Your task to perform on an android device: empty trash in the gmail app Image 0: 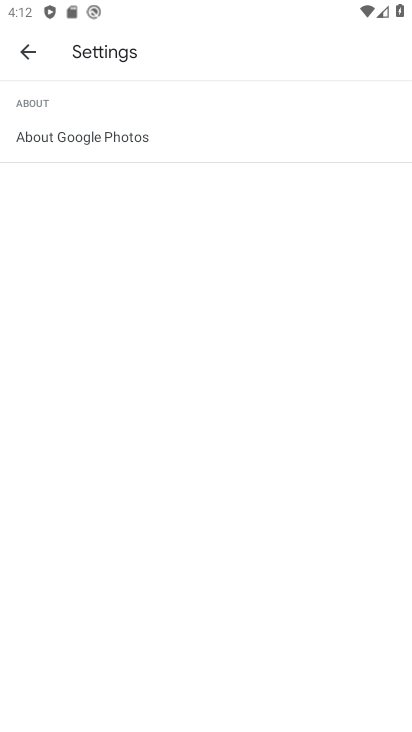
Step 0: press home button
Your task to perform on an android device: empty trash in the gmail app Image 1: 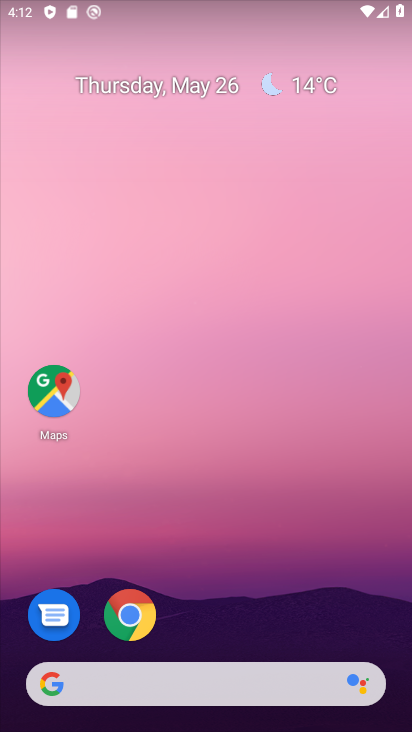
Step 1: drag from (293, 547) to (271, 132)
Your task to perform on an android device: empty trash in the gmail app Image 2: 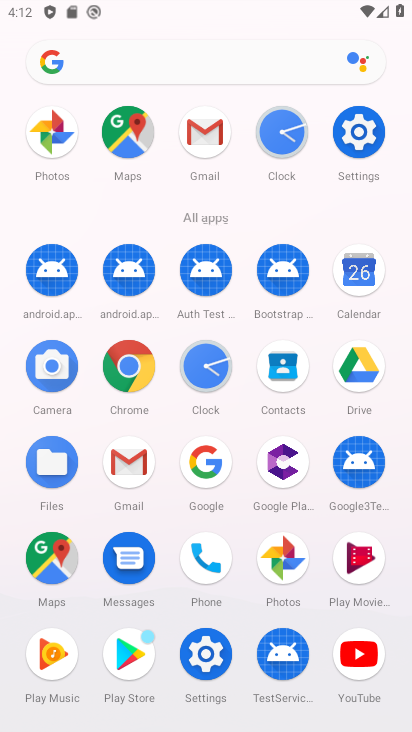
Step 2: click (195, 135)
Your task to perform on an android device: empty trash in the gmail app Image 3: 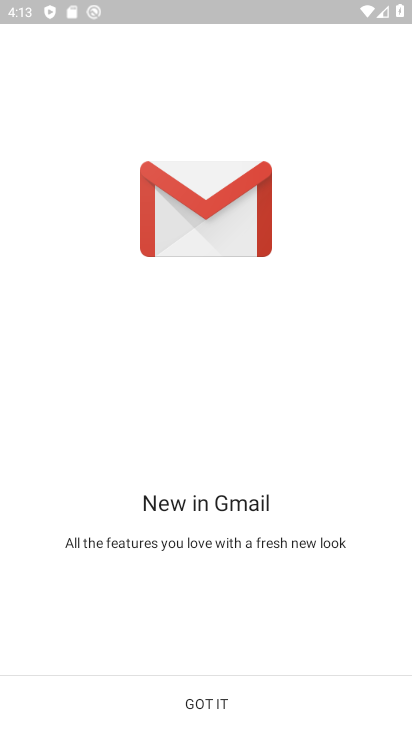
Step 3: click (196, 701)
Your task to perform on an android device: empty trash in the gmail app Image 4: 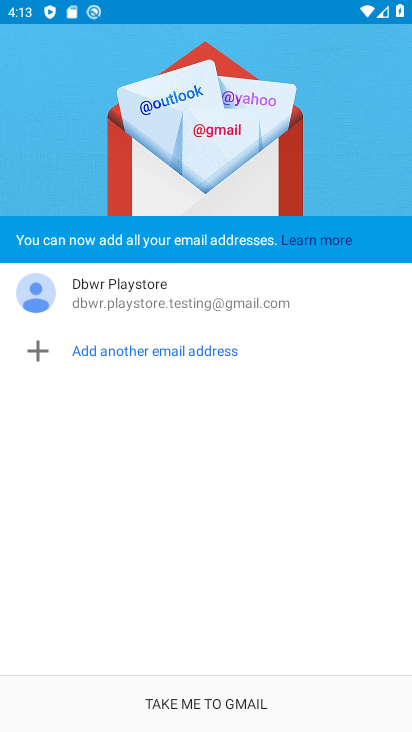
Step 4: click (224, 679)
Your task to perform on an android device: empty trash in the gmail app Image 5: 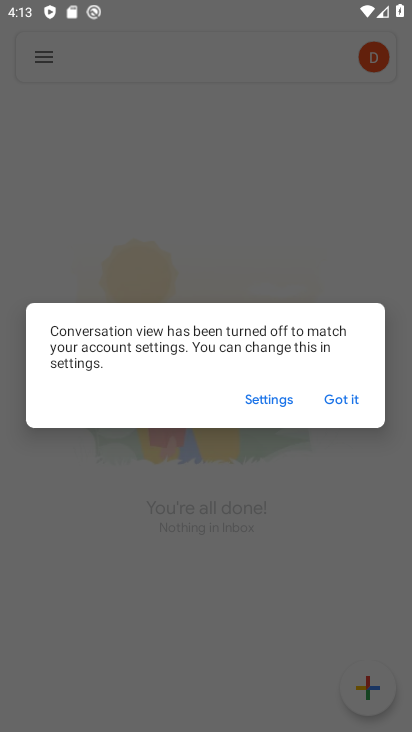
Step 5: click (330, 401)
Your task to perform on an android device: empty trash in the gmail app Image 6: 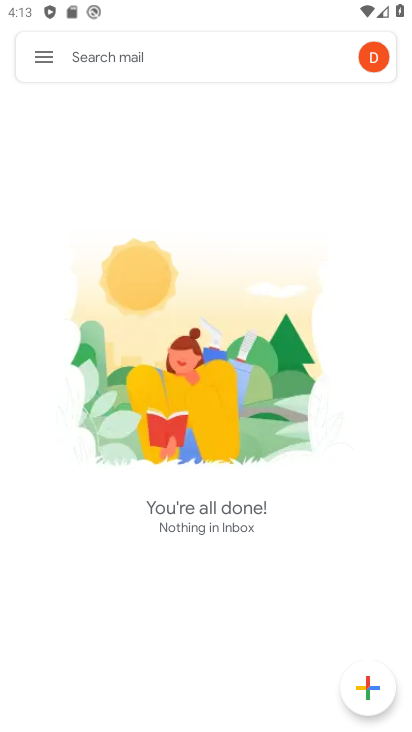
Step 6: click (45, 55)
Your task to perform on an android device: empty trash in the gmail app Image 7: 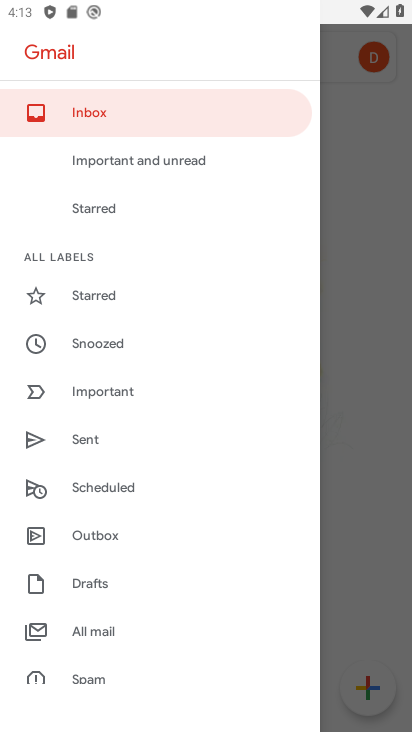
Step 7: drag from (106, 608) to (144, 276)
Your task to perform on an android device: empty trash in the gmail app Image 8: 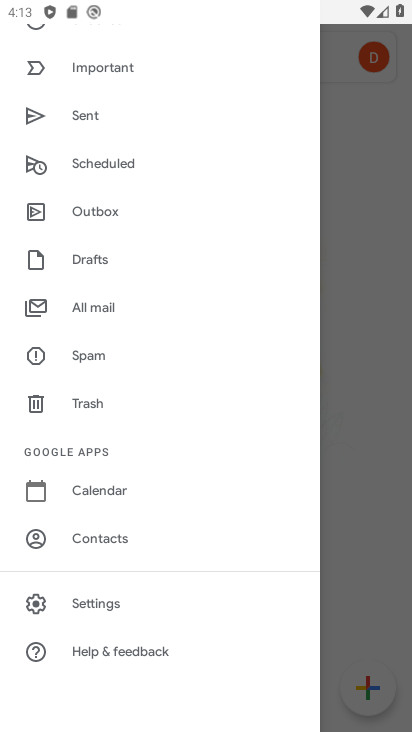
Step 8: click (89, 396)
Your task to perform on an android device: empty trash in the gmail app Image 9: 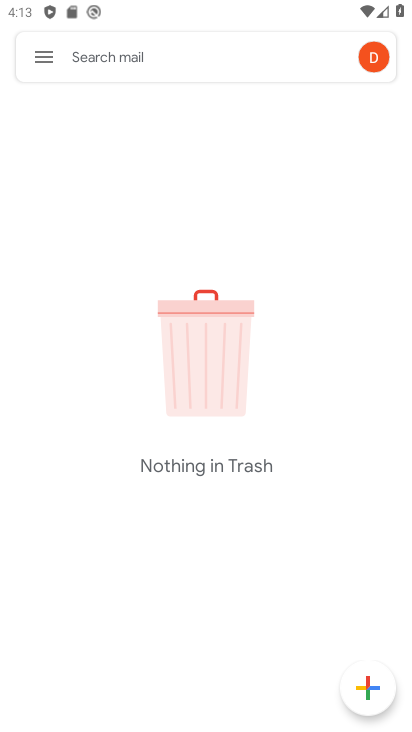
Step 9: task complete